Your task to perform on an android device: uninstall "Google Translate" Image 0: 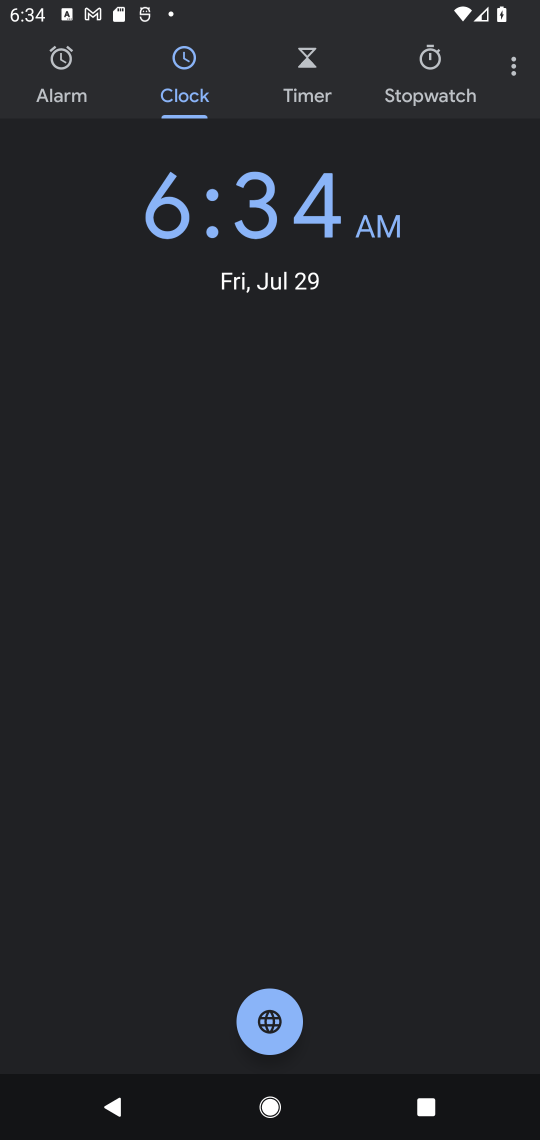
Step 0: press back button
Your task to perform on an android device: uninstall "Google Translate" Image 1: 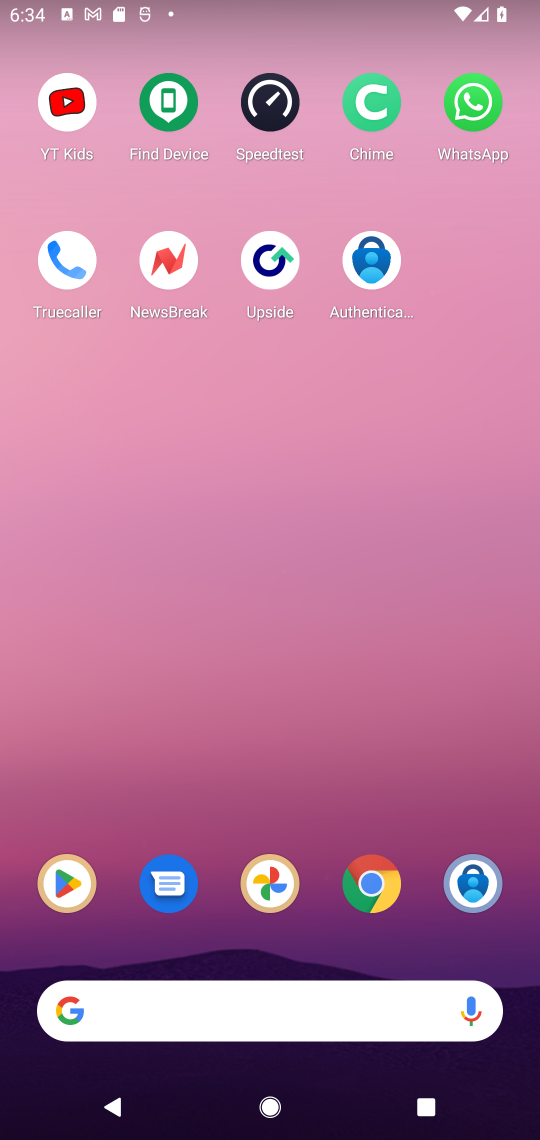
Step 1: click (58, 863)
Your task to perform on an android device: uninstall "Google Translate" Image 2: 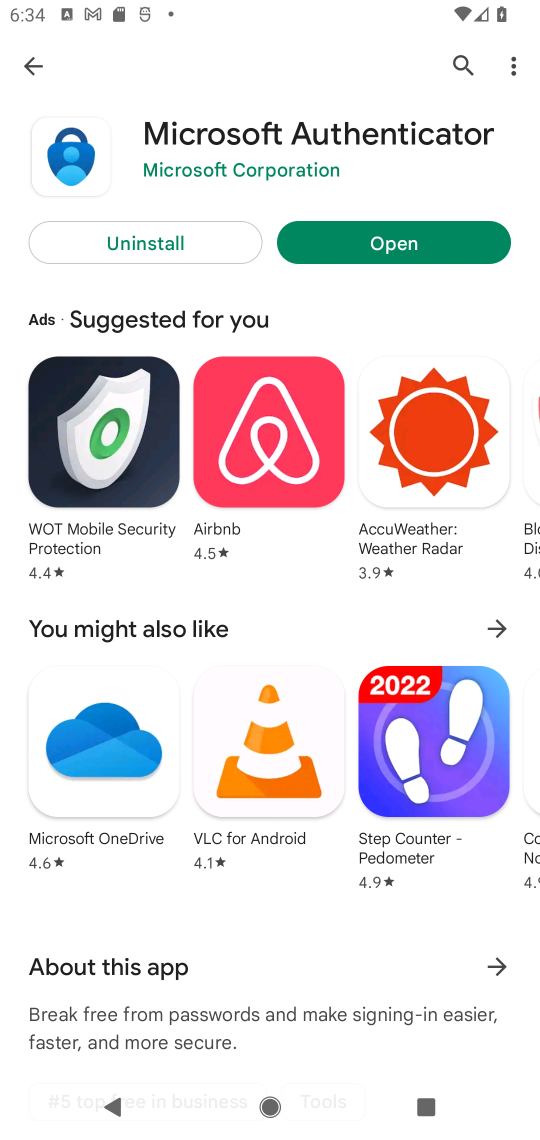
Step 2: click (462, 66)
Your task to perform on an android device: uninstall "Google Translate" Image 3: 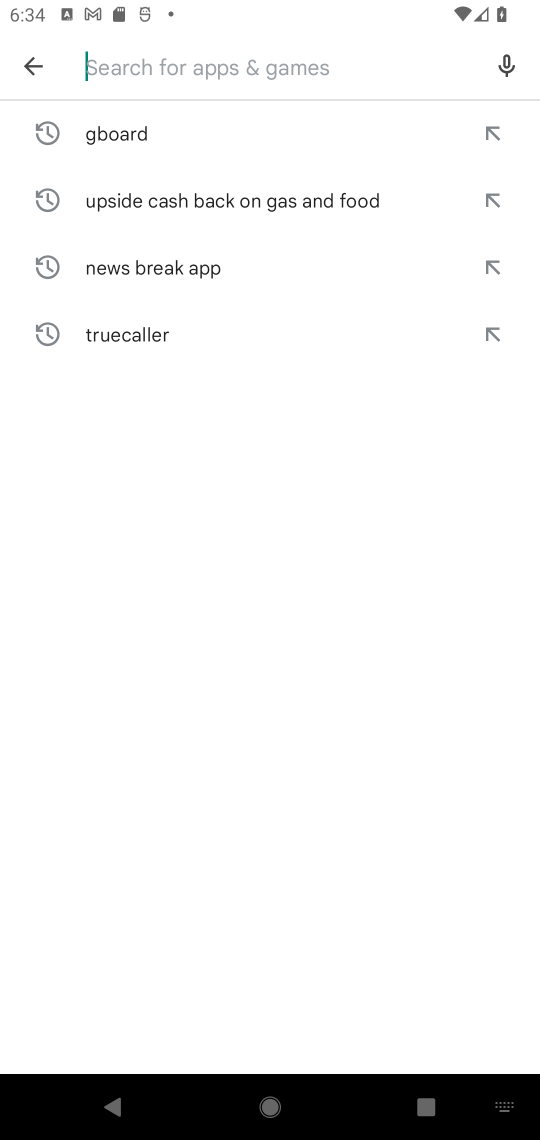
Step 3: type "google translate"
Your task to perform on an android device: uninstall "Google Translate" Image 4: 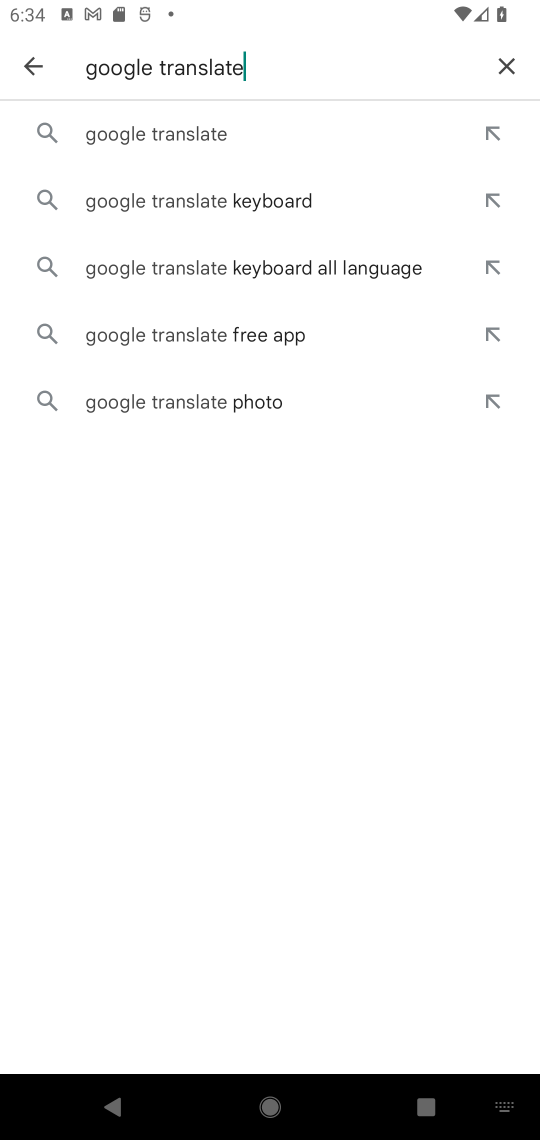
Step 4: click (163, 137)
Your task to perform on an android device: uninstall "Google Translate" Image 5: 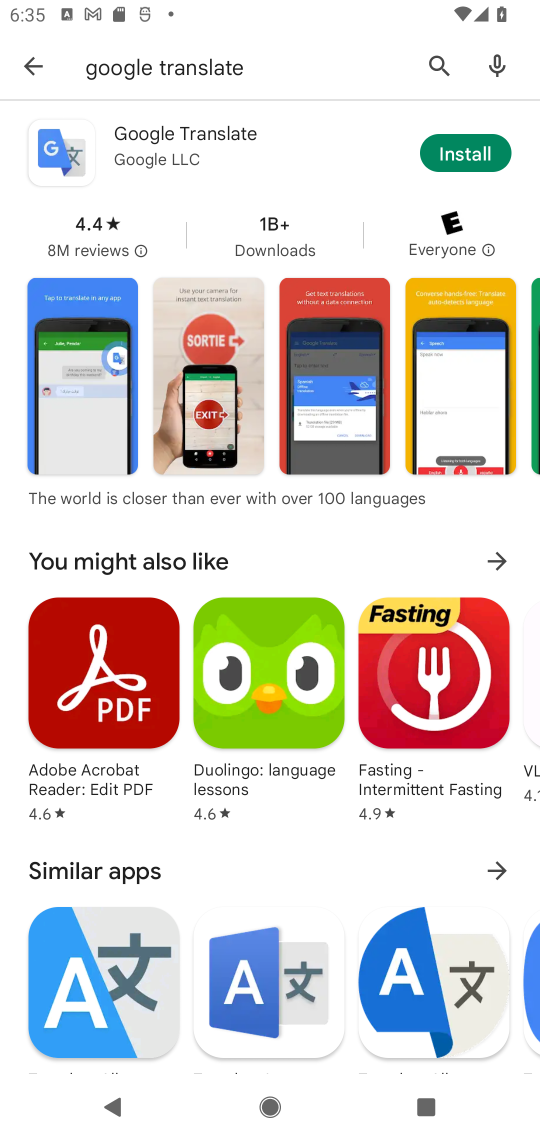
Step 5: click (158, 150)
Your task to perform on an android device: uninstall "Google Translate" Image 6: 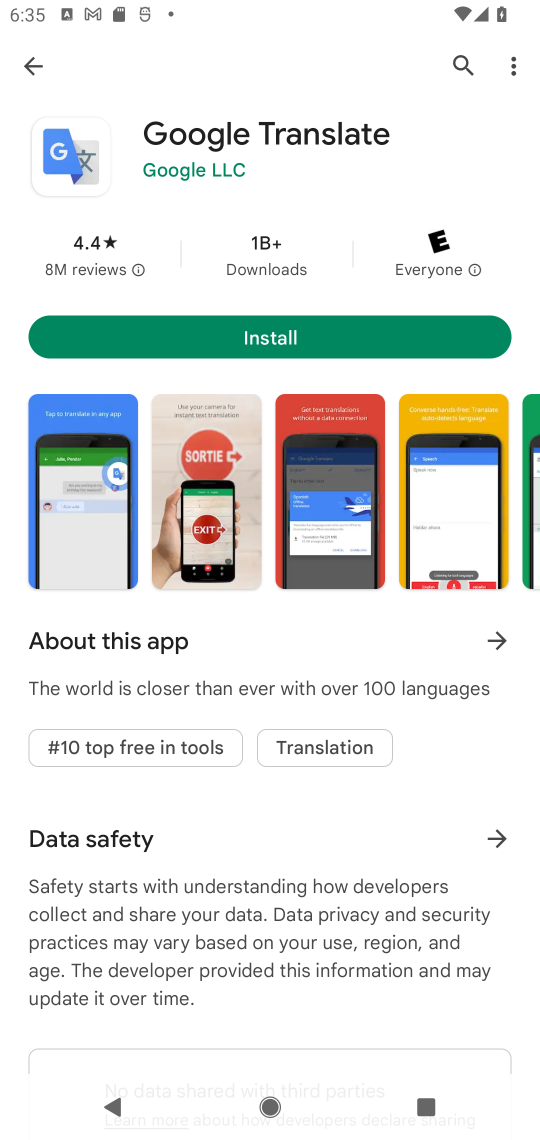
Step 6: task complete